Your task to perform on an android device: change notifications settings Image 0: 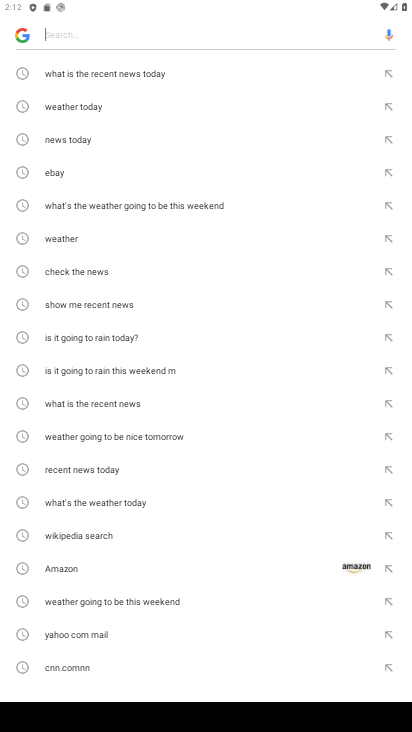
Step 0: press home button
Your task to perform on an android device: change notifications settings Image 1: 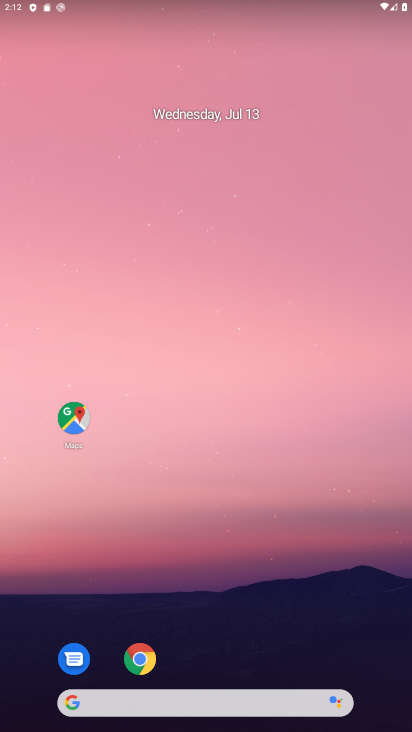
Step 1: drag from (257, 623) to (234, 16)
Your task to perform on an android device: change notifications settings Image 2: 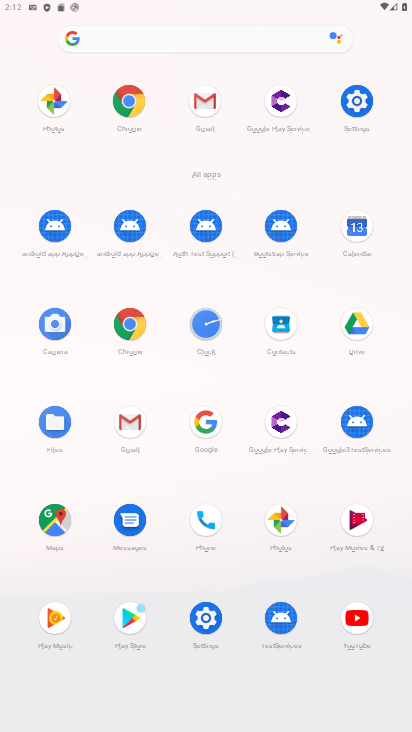
Step 2: click (365, 101)
Your task to perform on an android device: change notifications settings Image 3: 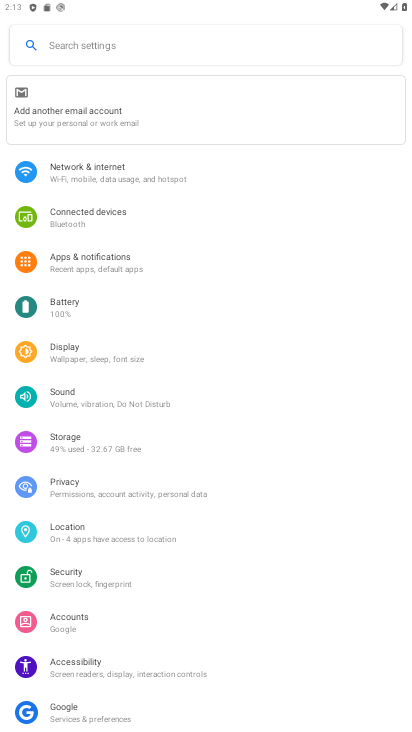
Step 3: click (112, 263)
Your task to perform on an android device: change notifications settings Image 4: 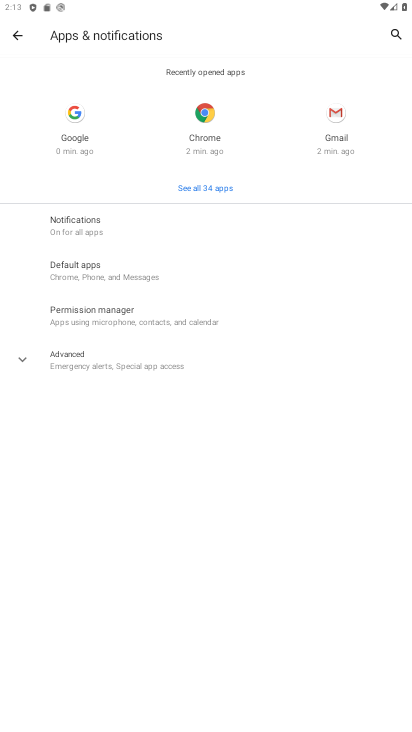
Step 4: click (94, 236)
Your task to perform on an android device: change notifications settings Image 5: 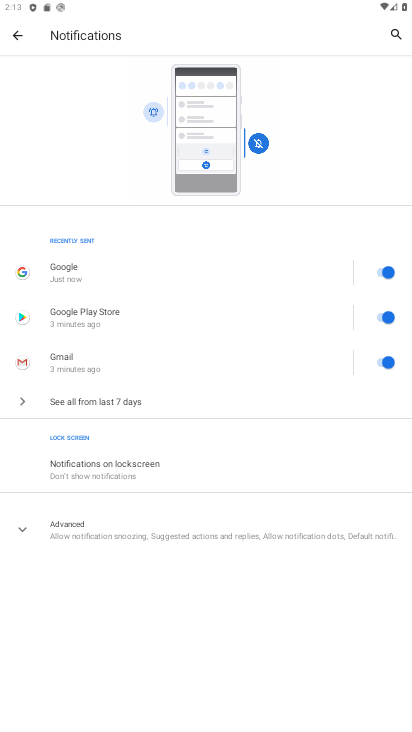
Step 5: click (87, 411)
Your task to perform on an android device: change notifications settings Image 6: 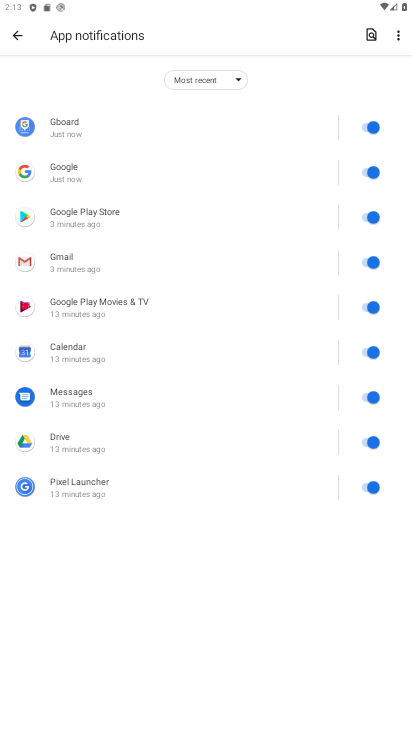
Step 6: click (368, 131)
Your task to perform on an android device: change notifications settings Image 7: 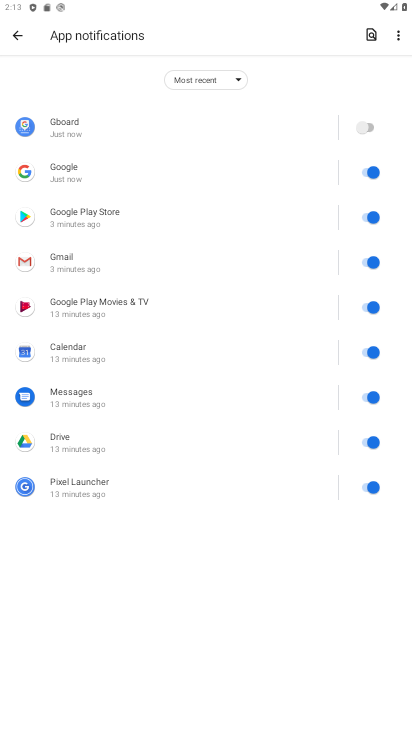
Step 7: click (368, 162)
Your task to perform on an android device: change notifications settings Image 8: 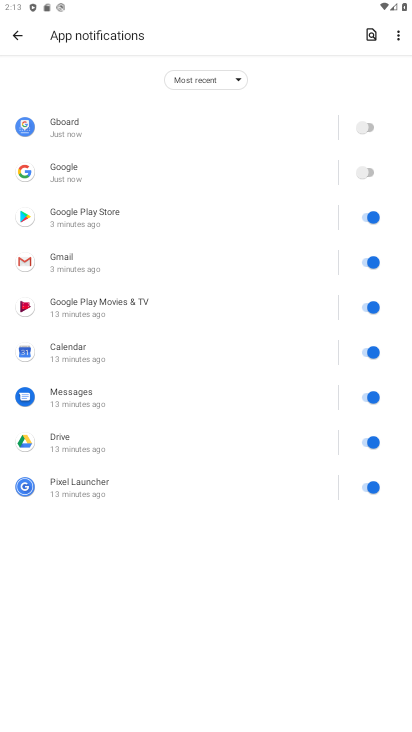
Step 8: click (365, 217)
Your task to perform on an android device: change notifications settings Image 9: 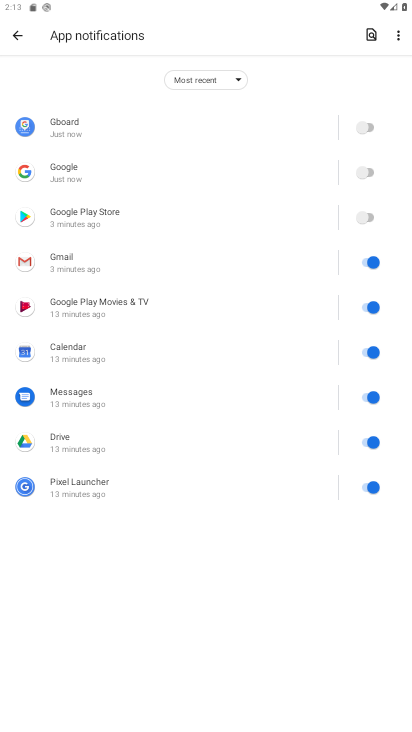
Step 9: click (359, 270)
Your task to perform on an android device: change notifications settings Image 10: 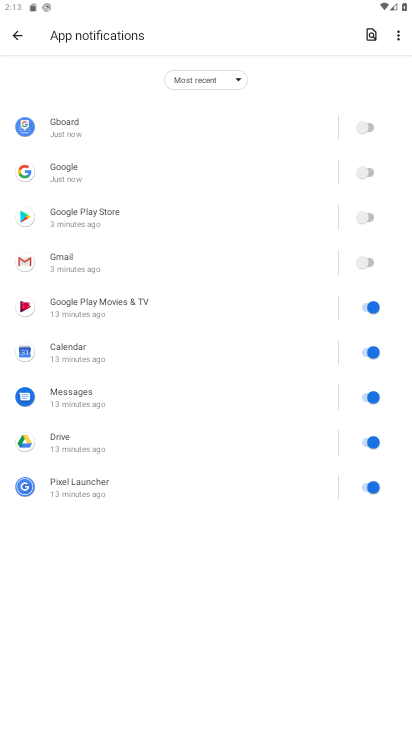
Step 10: click (359, 305)
Your task to perform on an android device: change notifications settings Image 11: 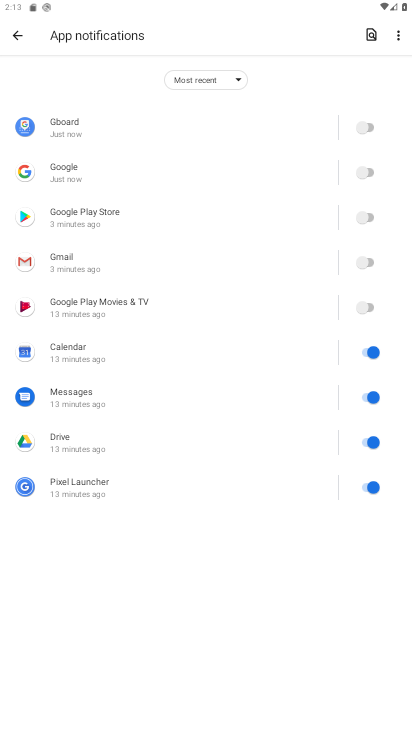
Step 11: click (369, 342)
Your task to perform on an android device: change notifications settings Image 12: 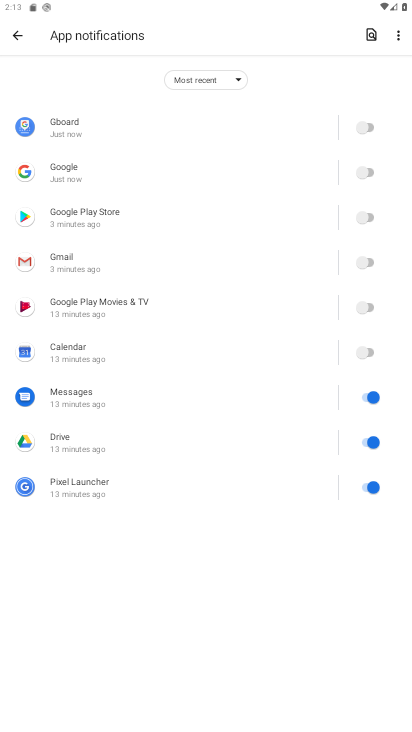
Step 12: click (366, 395)
Your task to perform on an android device: change notifications settings Image 13: 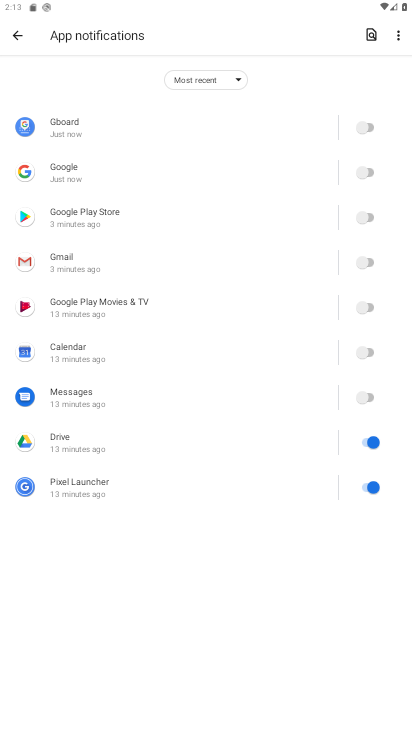
Step 13: click (366, 449)
Your task to perform on an android device: change notifications settings Image 14: 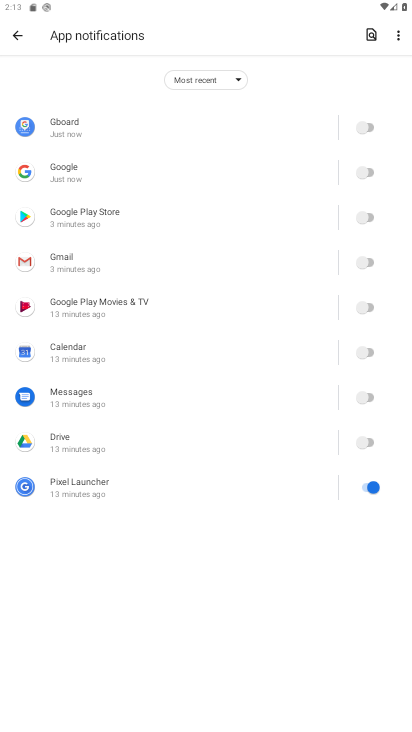
Step 14: click (366, 485)
Your task to perform on an android device: change notifications settings Image 15: 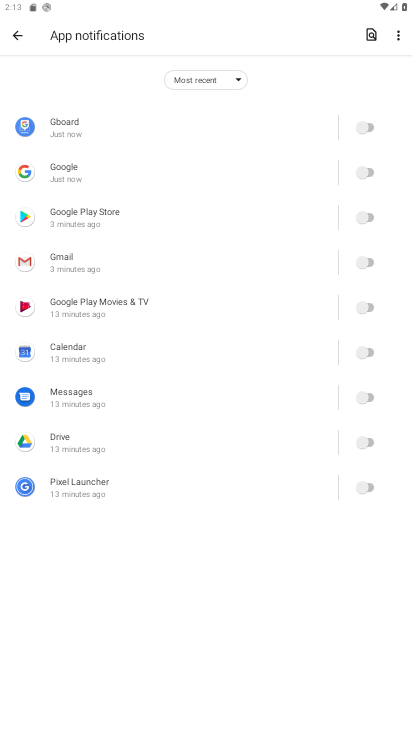
Step 15: click (20, 28)
Your task to perform on an android device: change notifications settings Image 16: 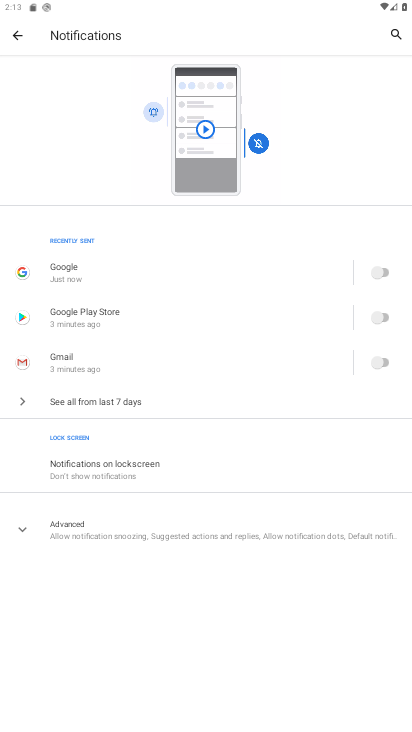
Step 16: click (66, 468)
Your task to perform on an android device: change notifications settings Image 17: 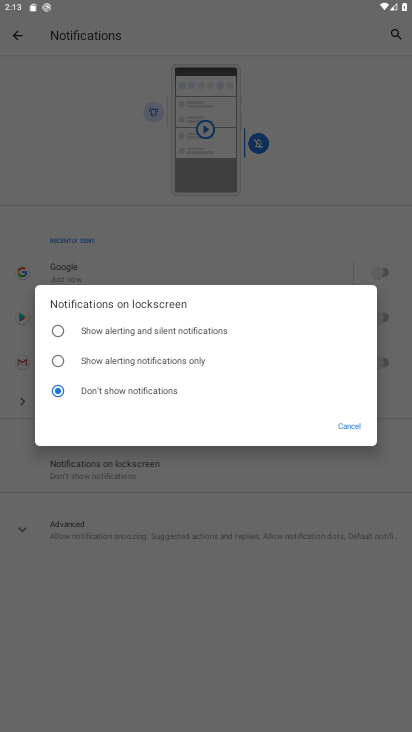
Step 17: click (88, 331)
Your task to perform on an android device: change notifications settings Image 18: 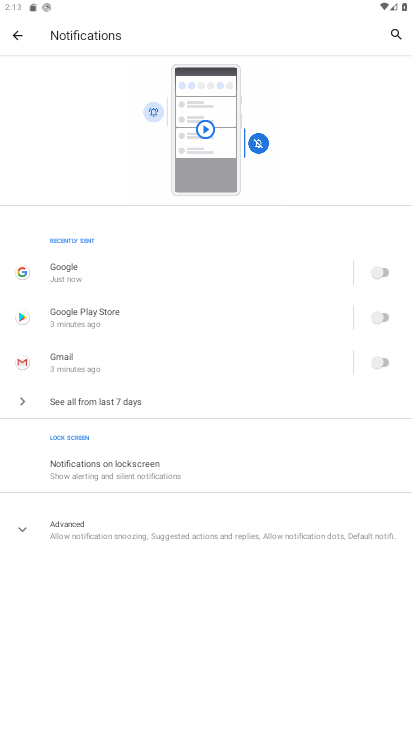
Step 18: click (88, 515)
Your task to perform on an android device: change notifications settings Image 19: 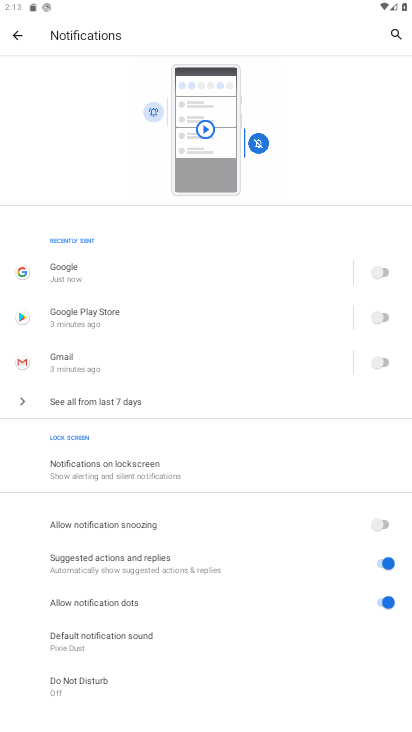
Step 19: click (382, 529)
Your task to perform on an android device: change notifications settings Image 20: 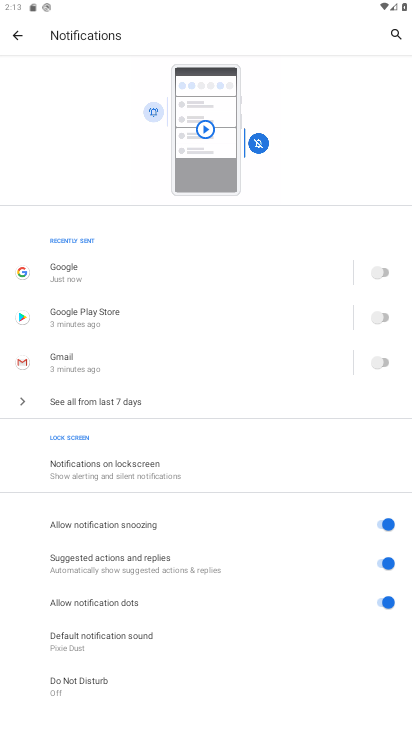
Step 20: click (382, 560)
Your task to perform on an android device: change notifications settings Image 21: 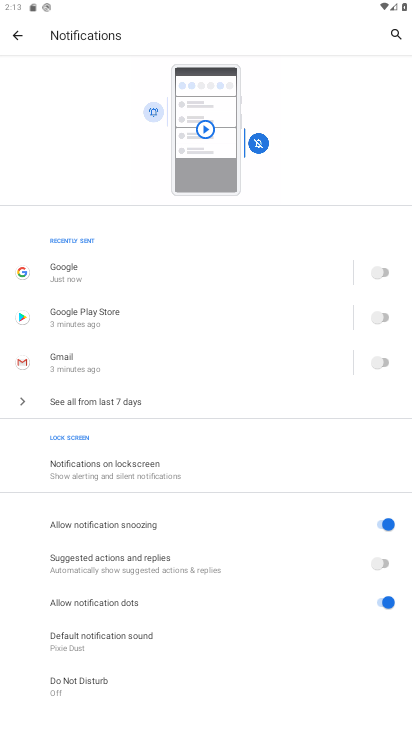
Step 21: click (381, 599)
Your task to perform on an android device: change notifications settings Image 22: 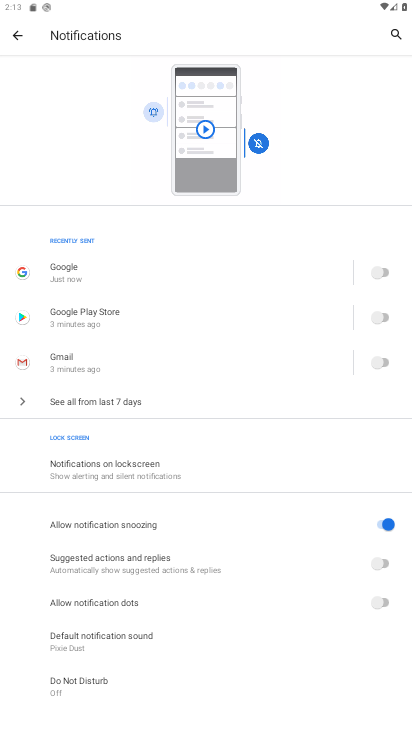
Step 22: task complete